Your task to perform on an android device: Open the calendar and show me this week's events? Image 0: 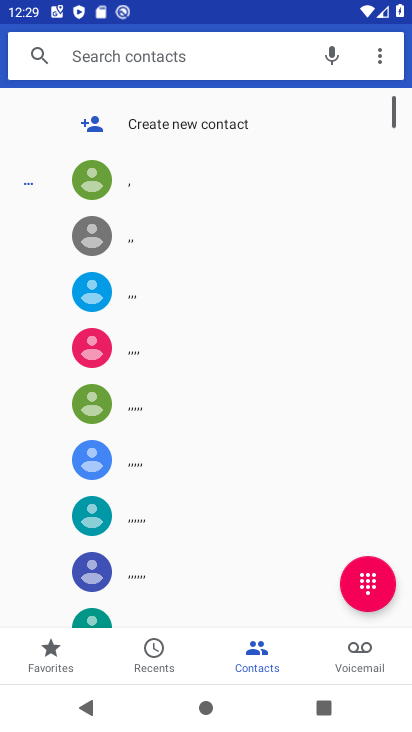
Step 0: drag from (222, 593) to (256, 177)
Your task to perform on an android device: Open the calendar and show me this week's events? Image 1: 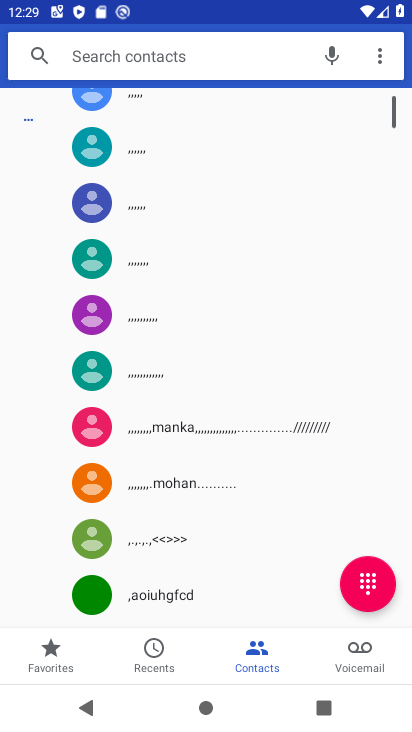
Step 1: press home button
Your task to perform on an android device: Open the calendar and show me this week's events? Image 2: 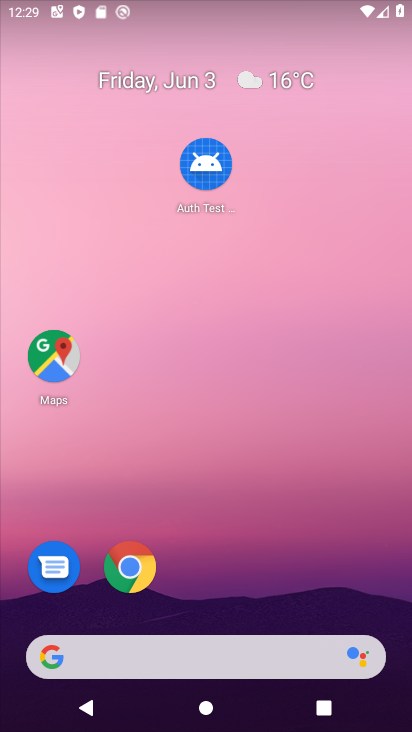
Step 2: click (185, 84)
Your task to perform on an android device: Open the calendar and show me this week's events? Image 3: 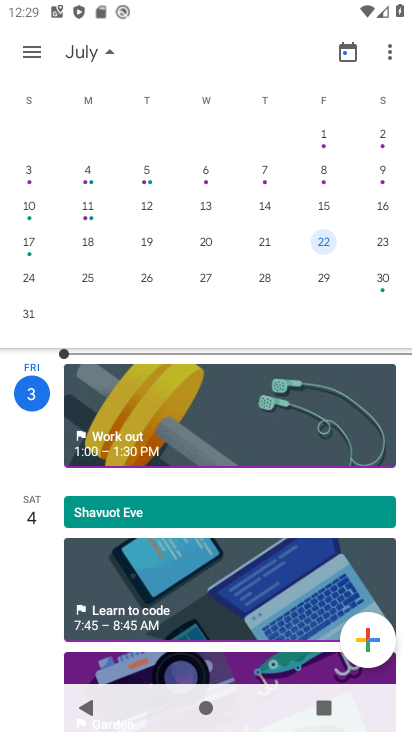
Step 3: drag from (68, 553) to (133, 108)
Your task to perform on an android device: Open the calendar and show me this week's events? Image 4: 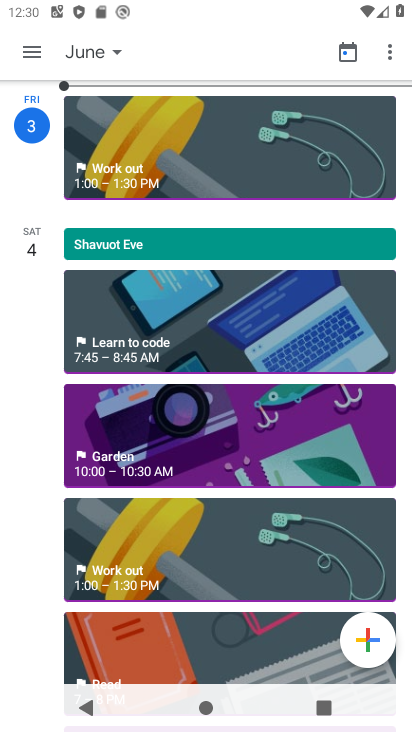
Step 4: click (47, 56)
Your task to perform on an android device: Open the calendar and show me this week's events? Image 5: 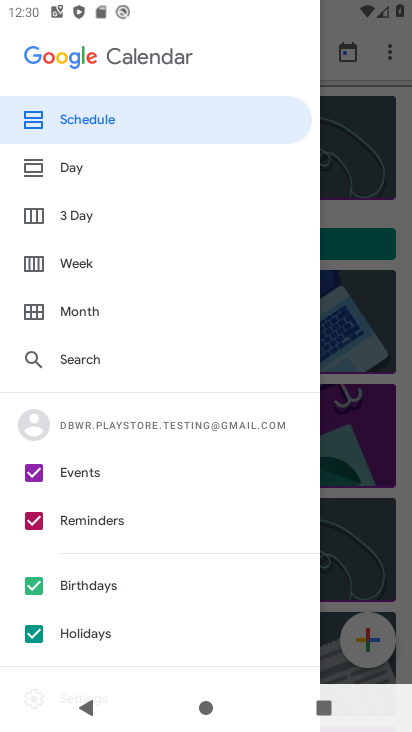
Step 5: click (34, 520)
Your task to perform on an android device: Open the calendar and show me this week's events? Image 6: 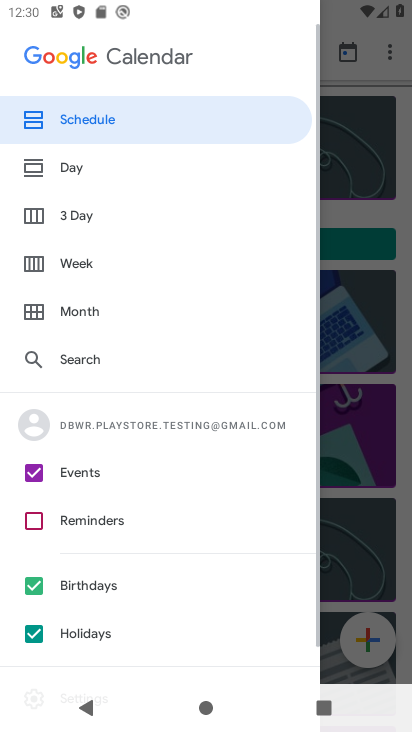
Step 6: click (29, 592)
Your task to perform on an android device: Open the calendar and show me this week's events? Image 7: 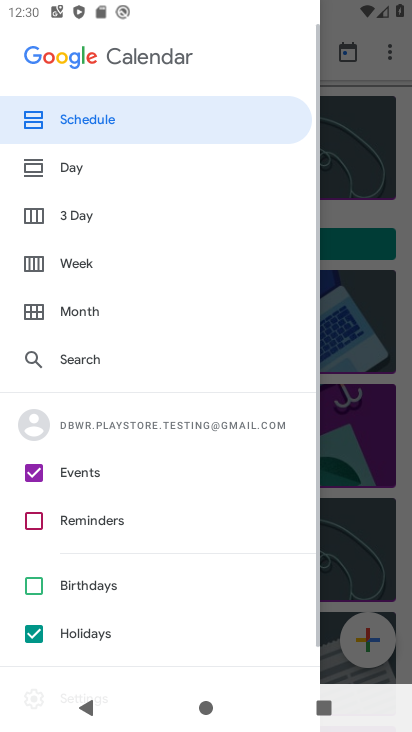
Step 7: click (30, 628)
Your task to perform on an android device: Open the calendar and show me this week's events? Image 8: 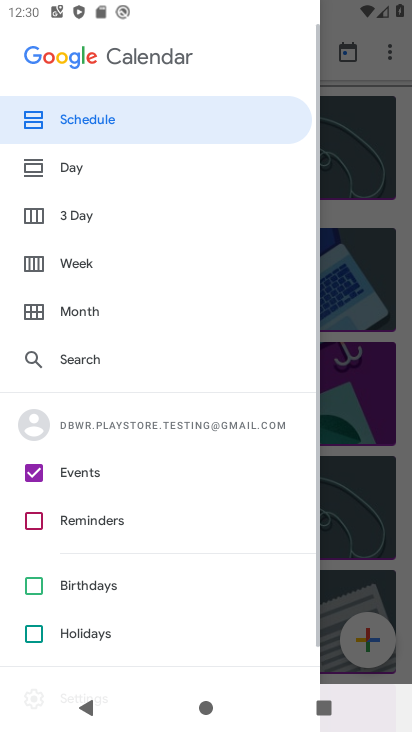
Step 8: click (342, 357)
Your task to perform on an android device: Open the calendar and show me this week's events? Image 9: 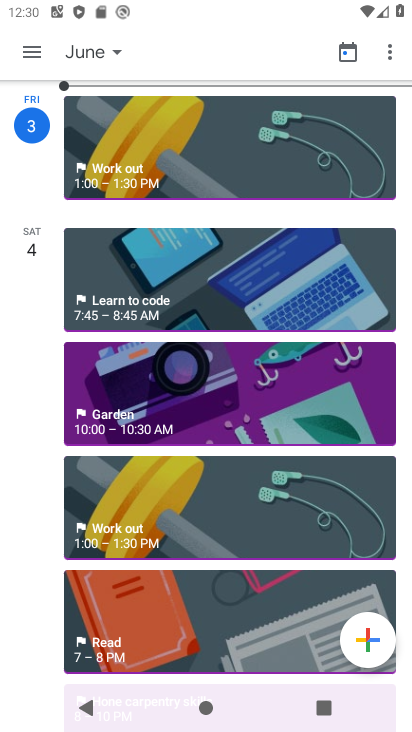
Step 9: click (24, 56)
Your task to perform on an android device: Open the calendar and show me this week's events? Image 10: 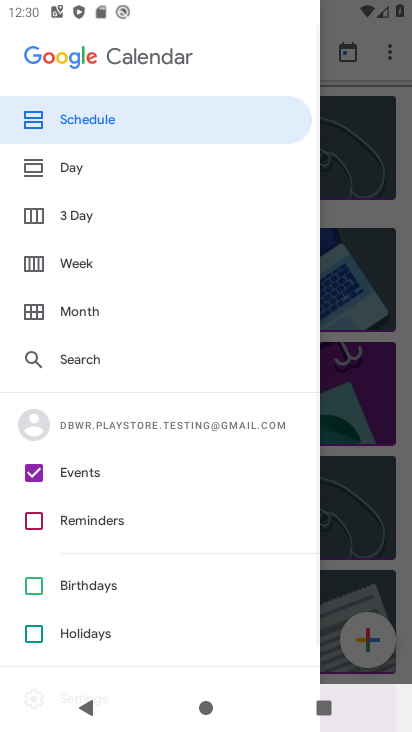
Step 10: click (113, 257)
Your task to perform on an android device: Open the calendar and show me this week's events? Image 11: 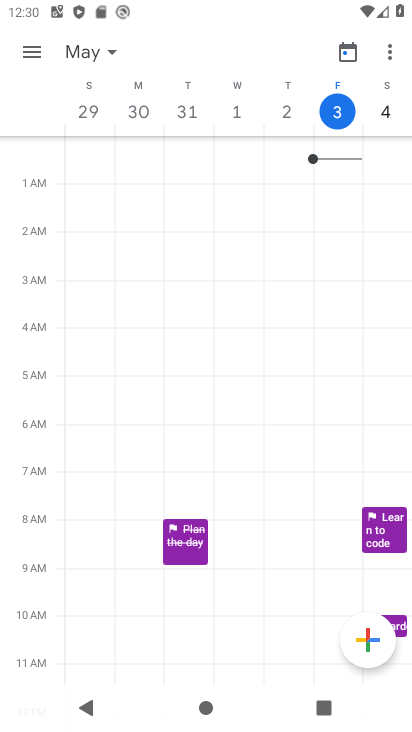
Step 11: task complete